Your task to perform on an android device: Open notification settings Image 0: 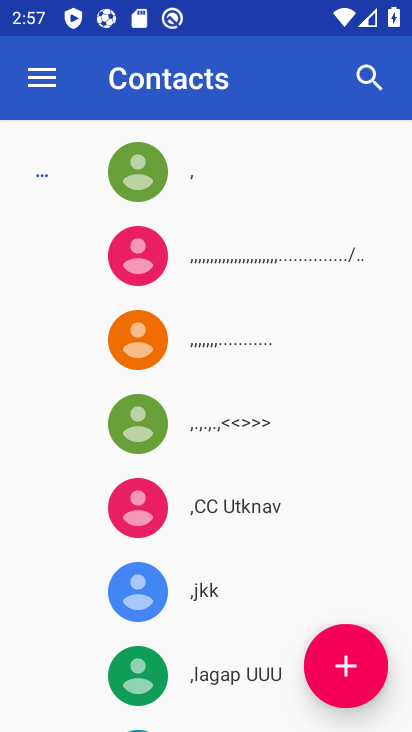
Step 0: press home button
Your task to perform on an android device: Open notification settings Image 1: 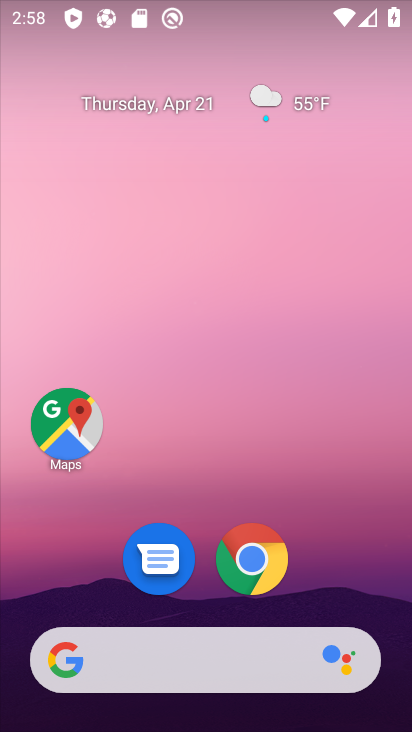
Step 1: drag from (340, 536) to (329, 229)
Your task to perform on an android device: Open notification settings Image 2: 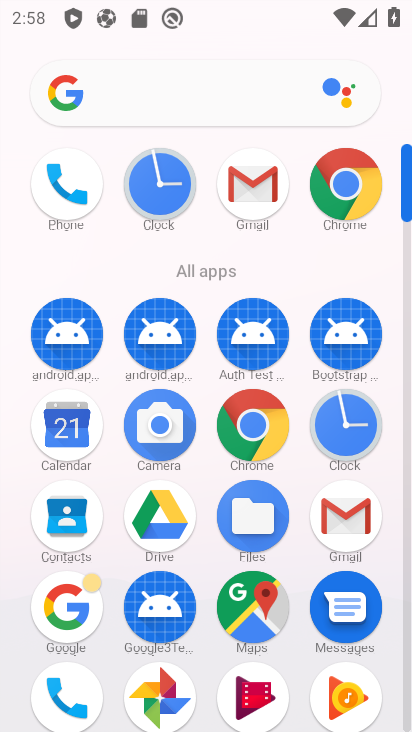
Step 2: drag from (196, 147) to (190, 42)
Your task to perform on an android device: Open notification settings Image 3: 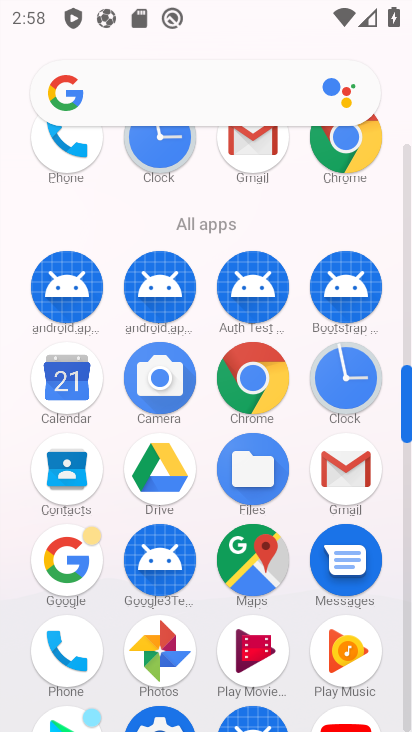
Step 3: click (164, 716)
Your task to perform on an android device: Open notification settings Image 4: 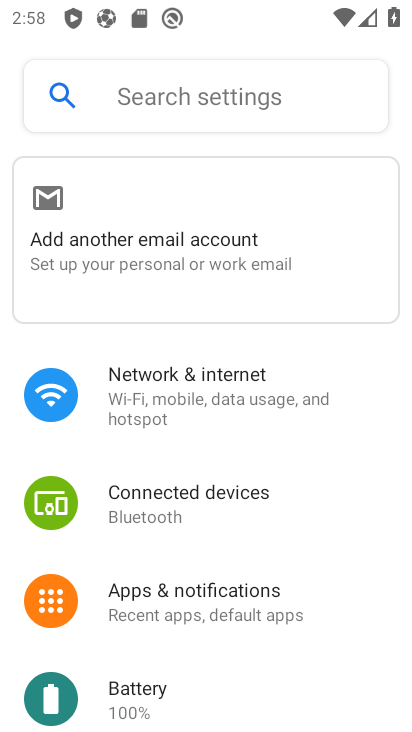
Step 4: drag from (208, 589) to (208, 451)
Your task to perform on an android device: Open notification settings Image 5: 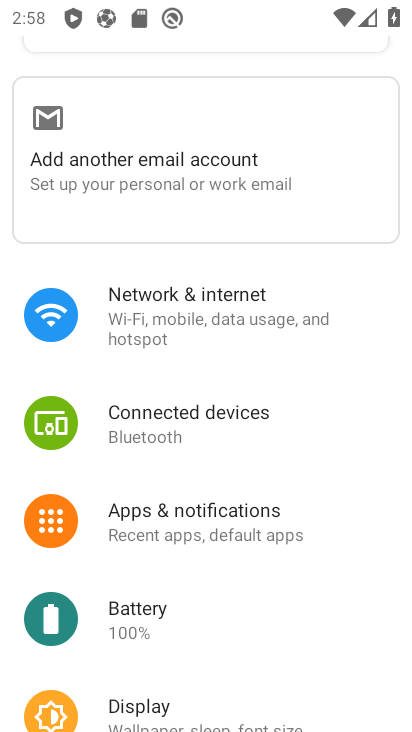
Step 5: click (209, 518)
Your task to perform on an android device: Open notification settings Image 6: 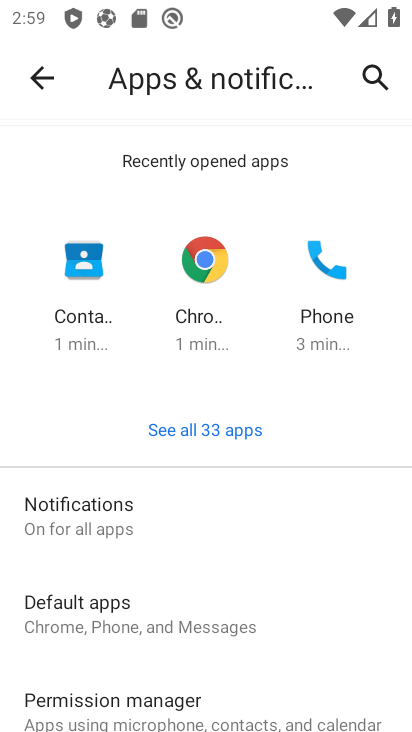
Step 6: drag from (246, 602) to (217, 419)
Your task to perform on an android device: Open notification settings Image 7: 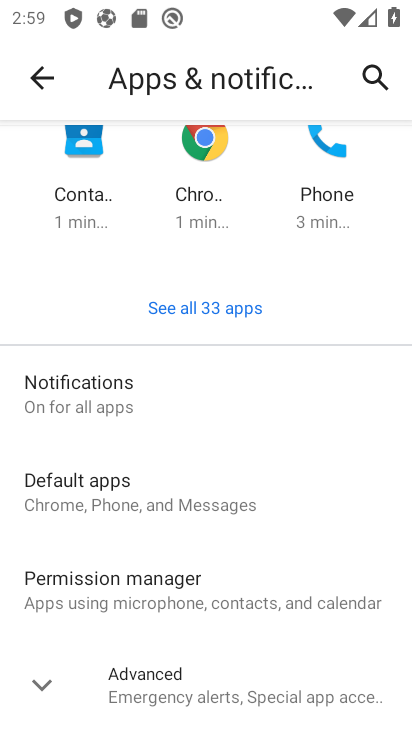
Step 7: click (205, 393)
Your task to perform on an android device: Open notification settings Image 8: 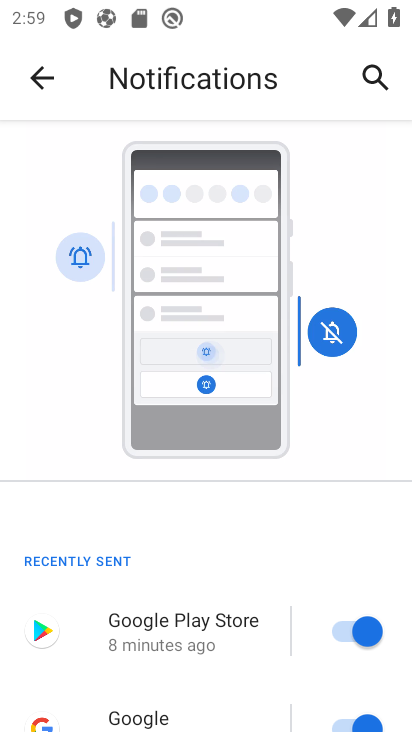
Step 8: task complete